Your task to perform on an android device: check data usage Image 0: 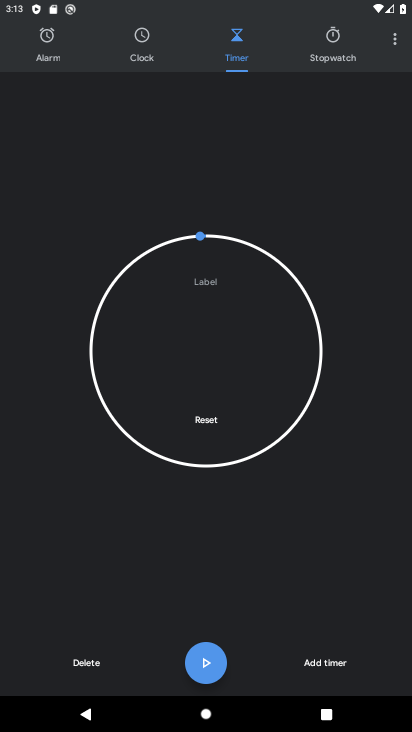
Step 0: press back button
Your task to perform on an android device: check data usage Image 1: 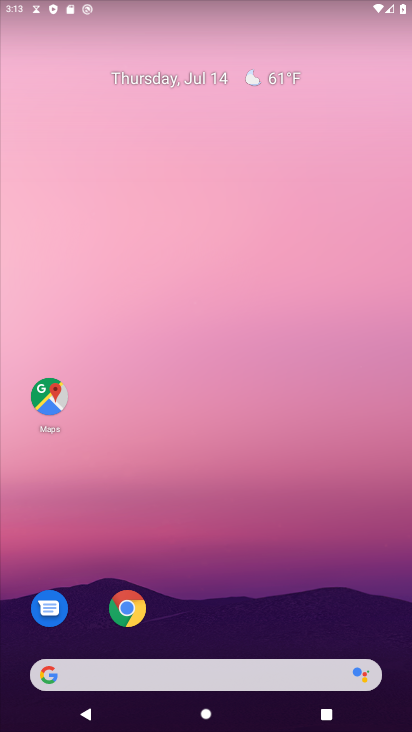
Step 1: drag from (162, 671) to (153, 142)
Your task to perform on an android device: check data usage Image 2: 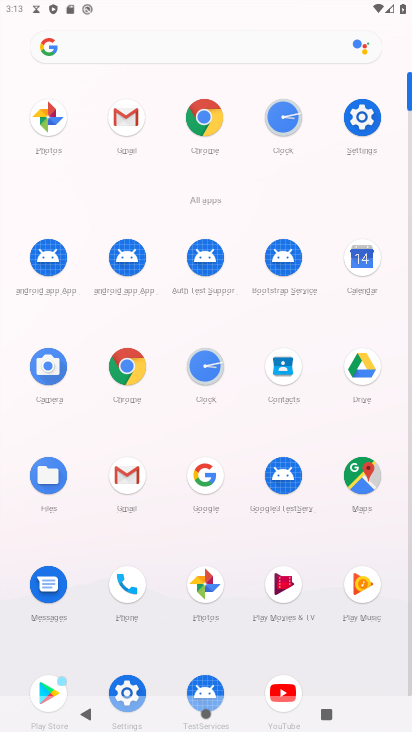
Step 2: click (362, 127)
Your task to perform on an android device: check data usage Image 3: 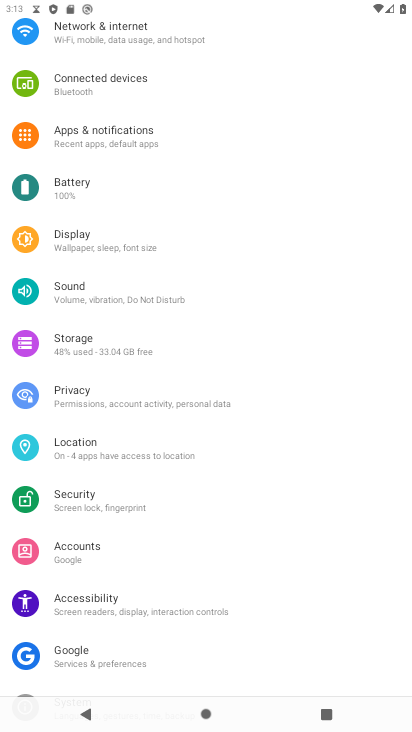
Step 3: drag from (120, 190) to (94, 681)
Your task to perform on an android device: check data usage Image 4: 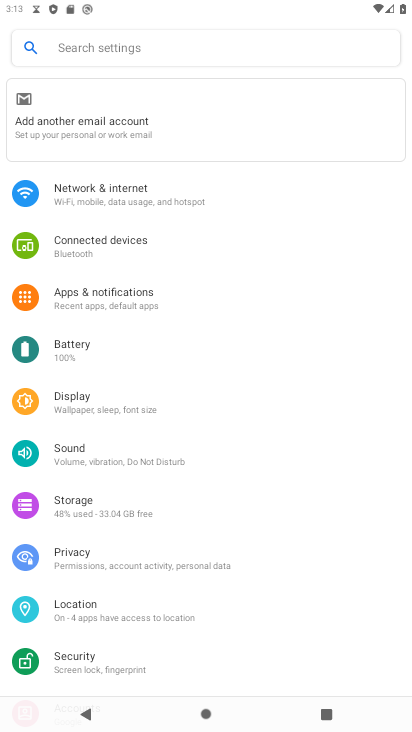
Step 4: click (107, 199)
Your task to perform on an android device: check data usage Image 5: 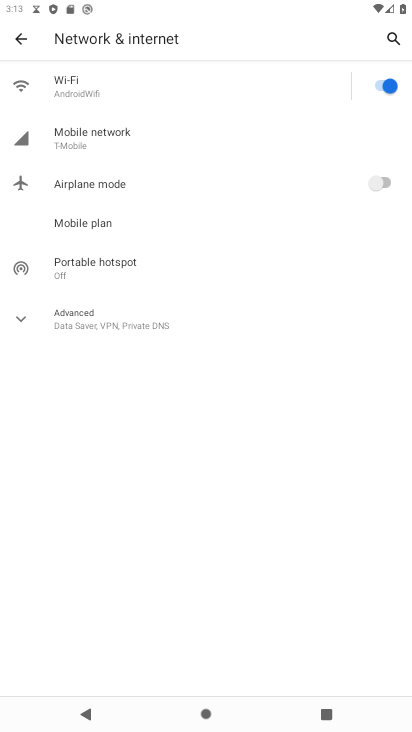
Step 5: click (99, 141)
Your task to perform on an android device: check data usage Image 6: 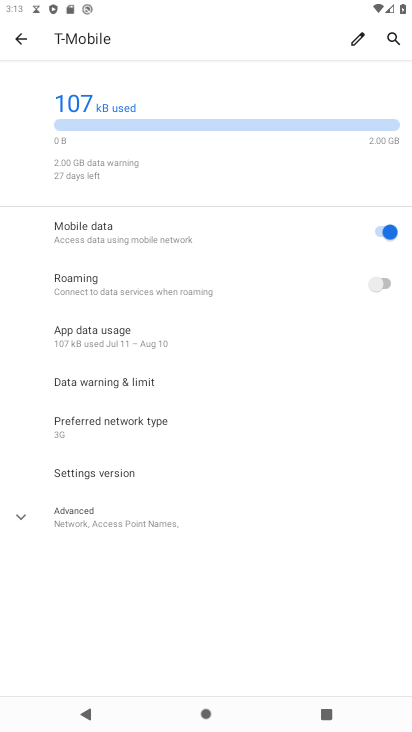
Step 6: task complete